Your task to perform on an android device: toggle notification dots Image 0: 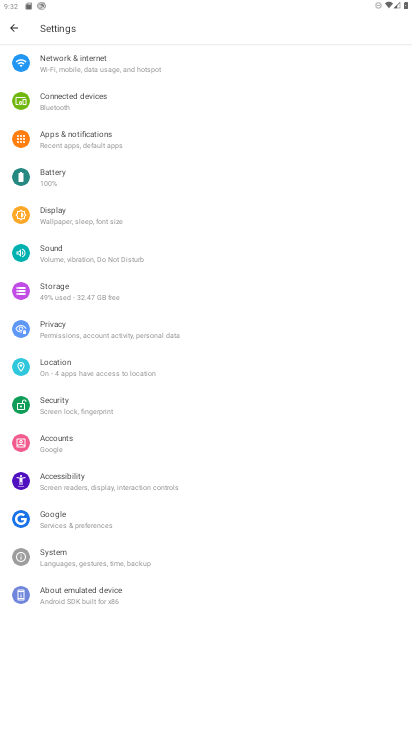
Step 0: click (116, 141)
Your task to perform on an android device: toggle notification dots Image 1: 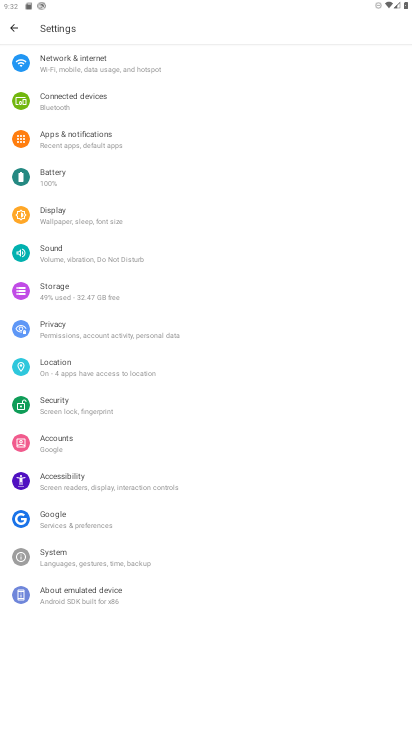
Step 1: click (116, 141)
Your task to perform on an android device: toggle notification dots Image 2: 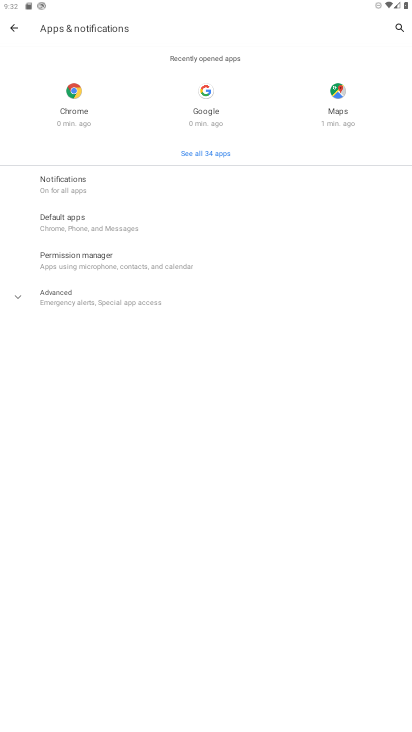
Step 2: click (68, 175)
Your task to perform on an android device: toggle notification dots Image 3: 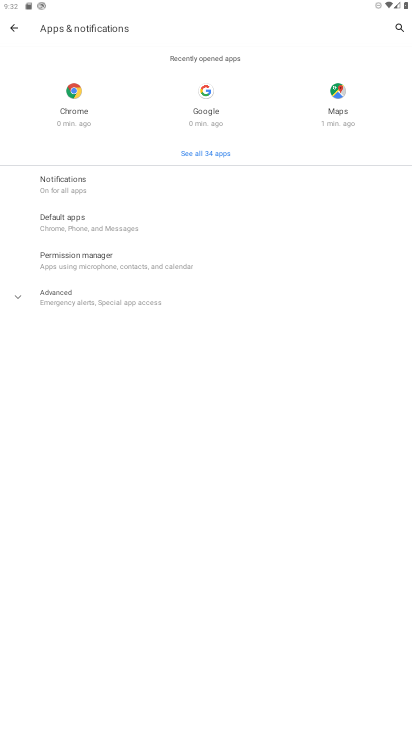
Step 3: click (68, 175)
Your task to perform on an android device: toggle notification dots Image 4: 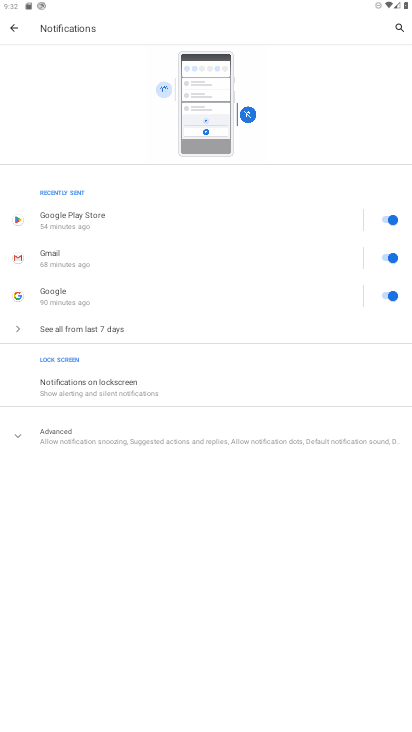
Step 4: click (98, 436)
Your task to perform on an android device: toggle notification dots Image 5: 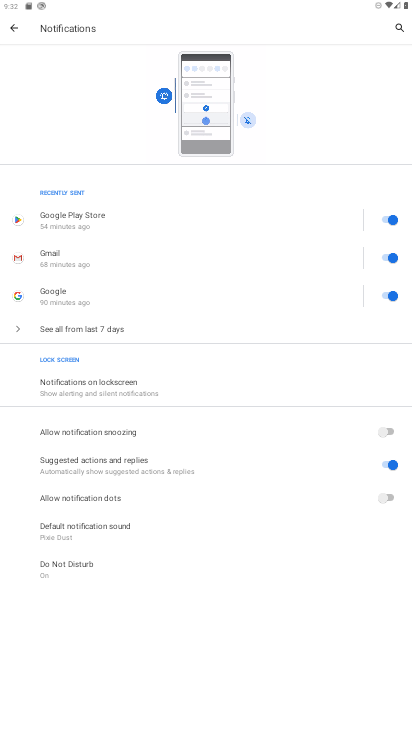
Step 5: click (379, 495)
Your task to perform on an android device: toggle notification dots Image 6: 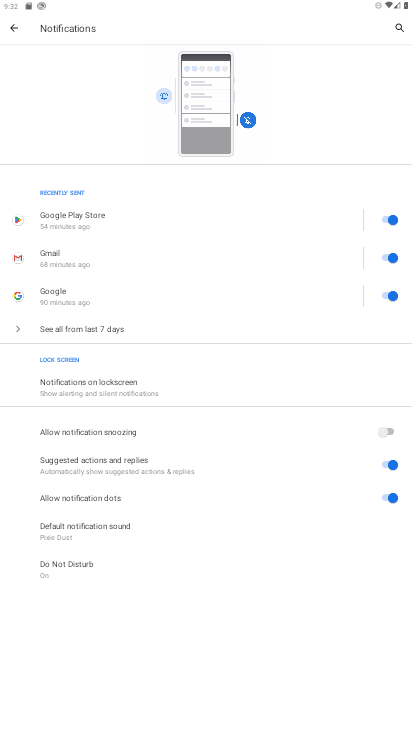
Step 6: task complete